Your task to perform on an android device: Set the phone to "Do not disturb". Image 0: 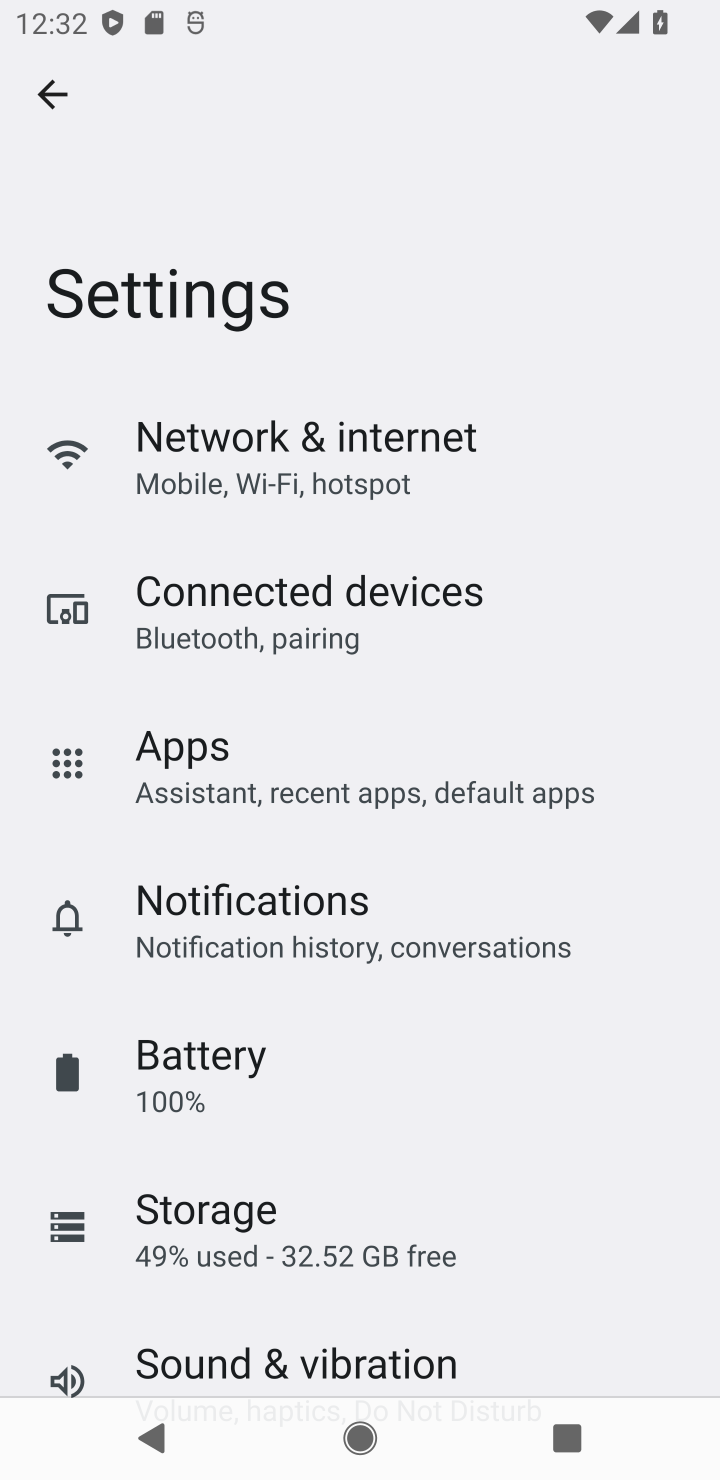
Step 0: press home button
Your task to perform on an android device: Set the phone to "Do not disturb". Image 1: 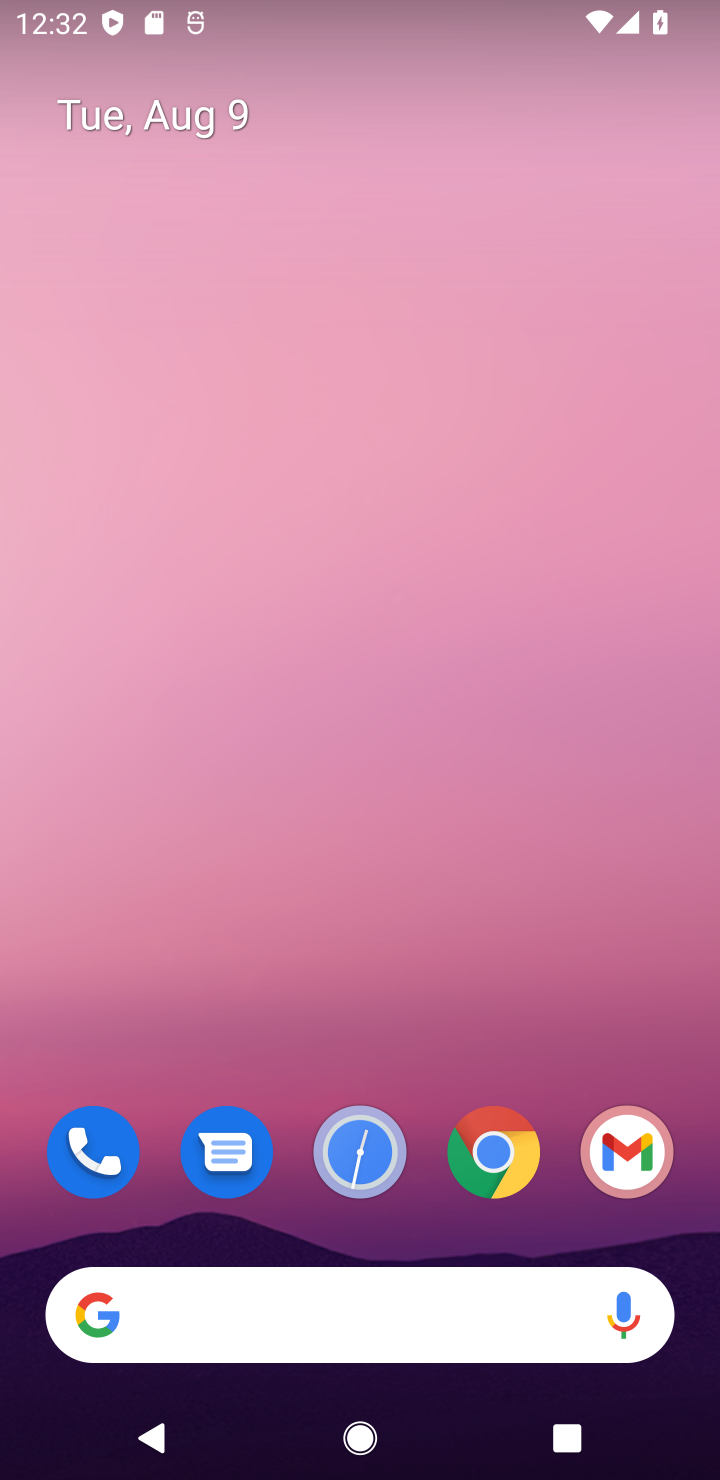
Step 1: drag from (316, 40) to (495, 950)
Your task to perform on an android device: Set the phone to "Do not disturb". Image 2: 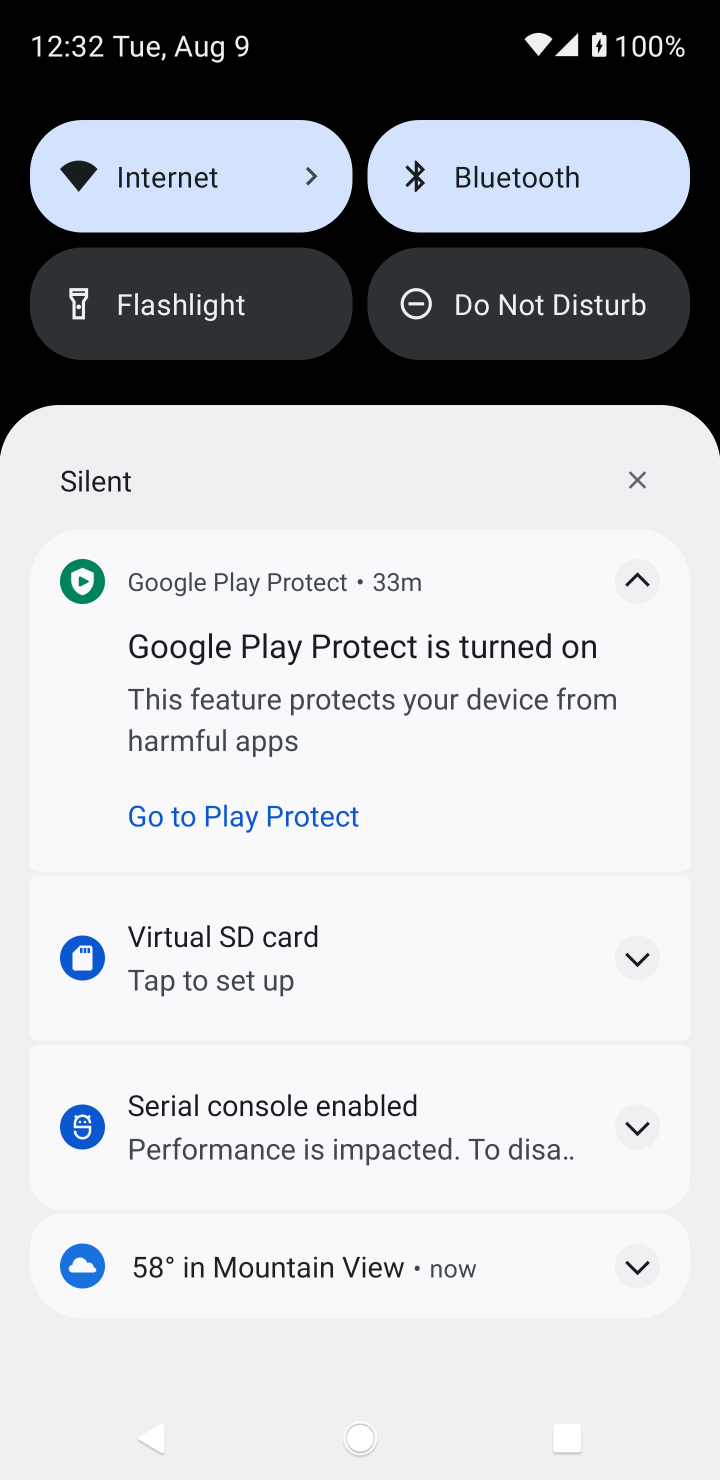
Step 2: click (502, 317)
Your task to perform on an android device: Set the phone to "Do not disturb". Image 3: 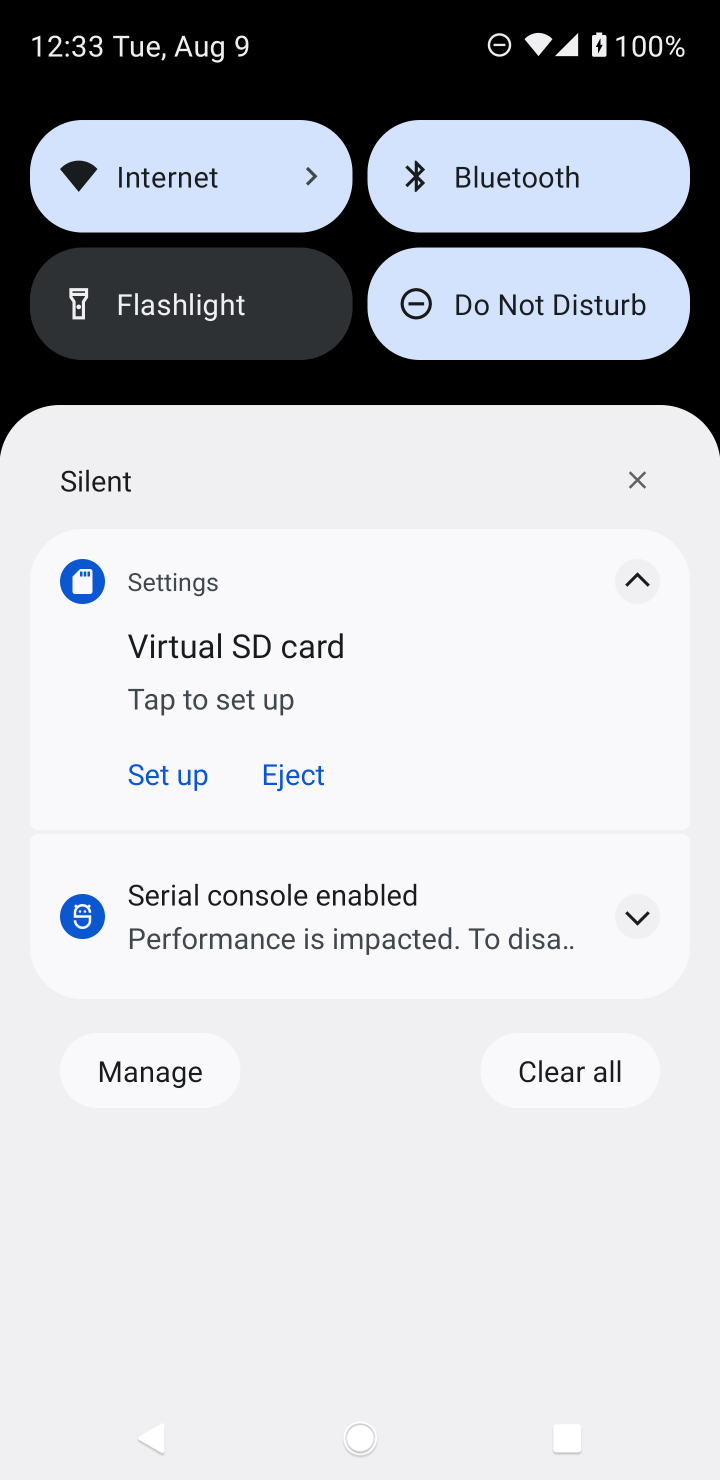
Step 3: task complete